Your task to perform on an android device: see tabs open on other devices in the chrome app Image 0: 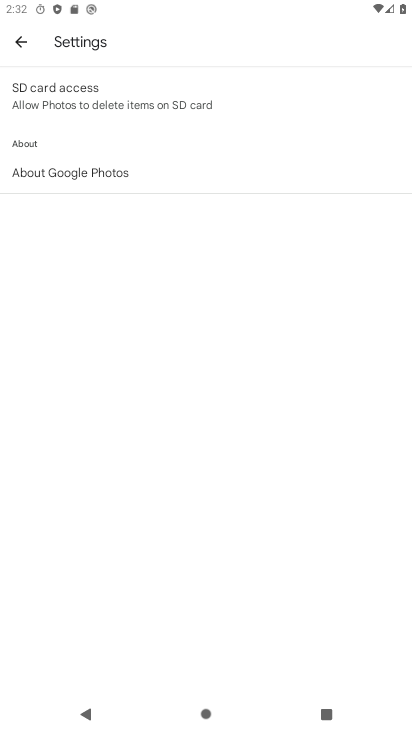
Step 0: press home button
Your task to perform on an android device: see tabs open on other devices in the chrome app Image 1: 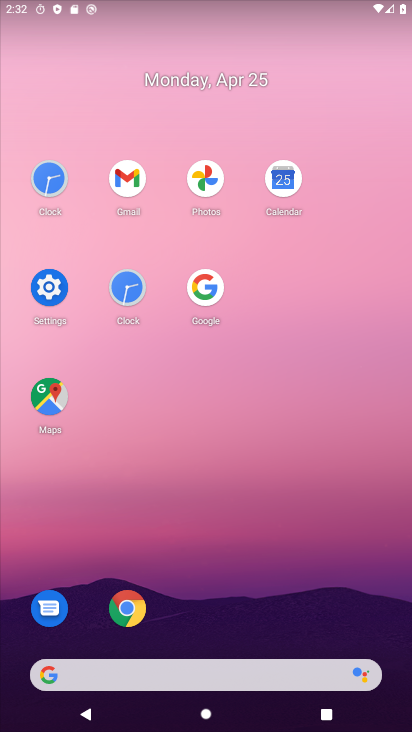
Step 1: click (129, 599)
Your task to perform on an android device: see tabs open on other devices in the chrome app Image 2: 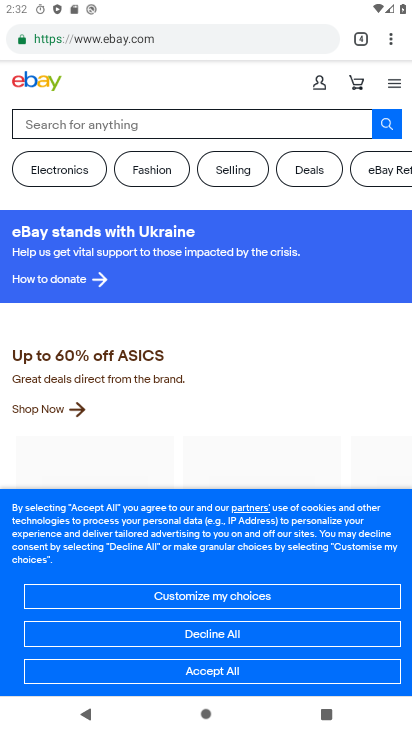
Step 2: click (384, 38)
Your task to perform on an android device: see tabs open on other devices in the chrome app Image 3: 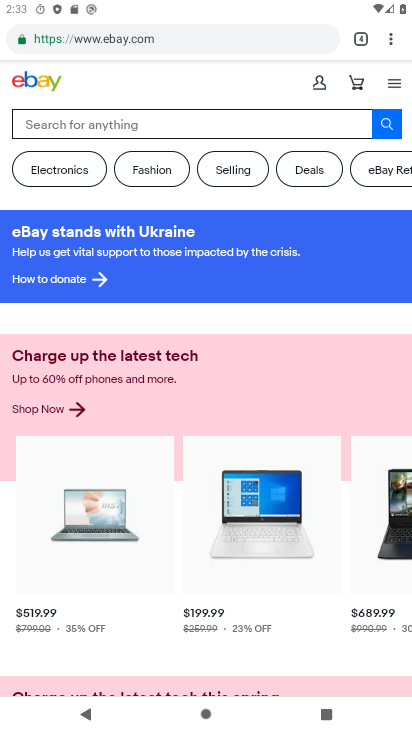
Step 3: click (391, 38)
Your task to perform on an android device: see tabs open on other devices in the chrome app Image 4: 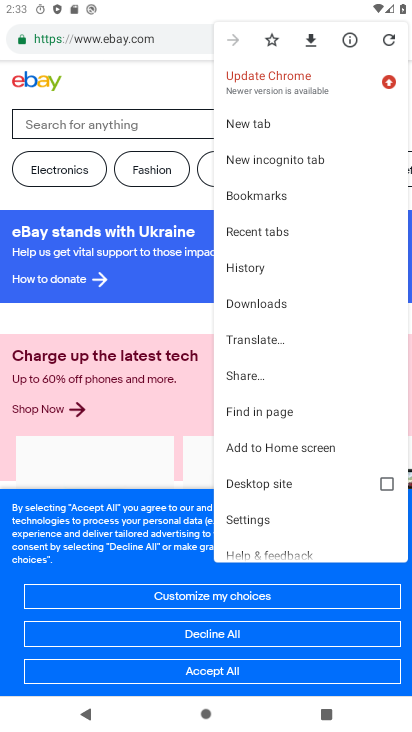
Step 4: click (318, 230)
Your task to perform on an android device: see tabs open on other devices in the chrome app Image 5: 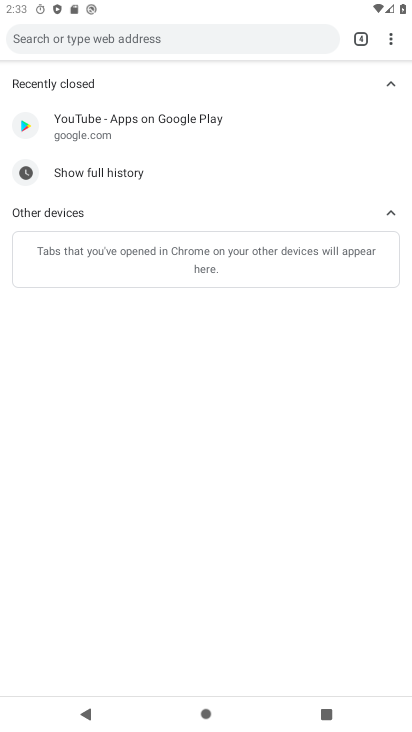
Step 5: task complete